Your task to perform on an android device: turn off sleep mode Image 0: 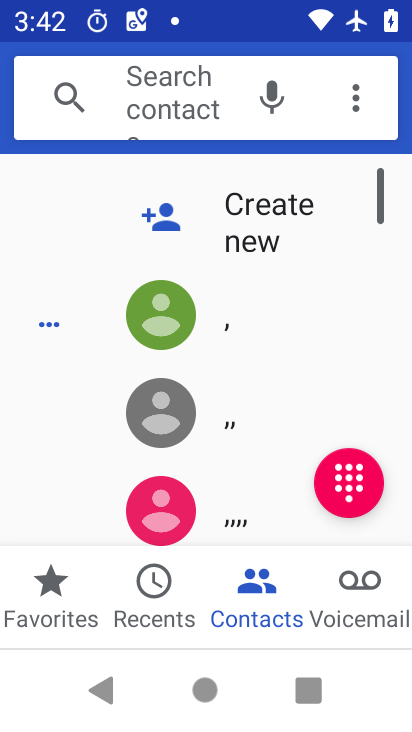
Step 0: press home button
Your task to perform on an android device: turn off sleep mode Image 1: 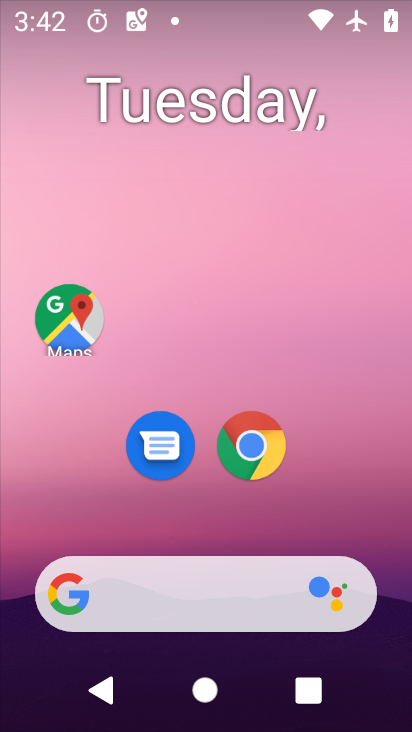
Step 1: drag from (184, 539) to (339, 1)
Your task to perform on an android device: turn off sleep mode Image 2: 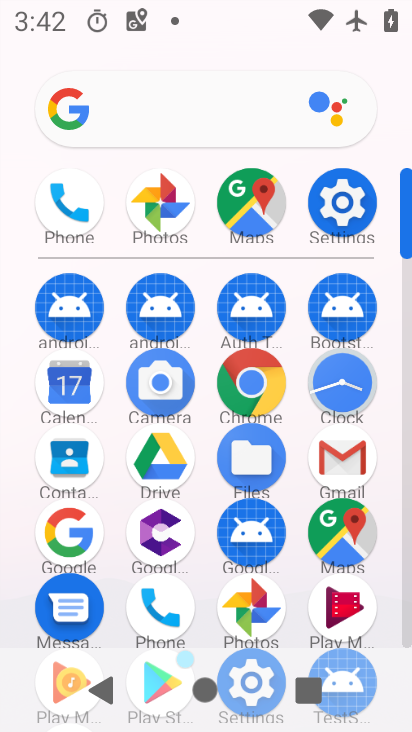
Step 2: click (344, 186)
Your task to perform on an android device: turn off sleep mode Image 3: 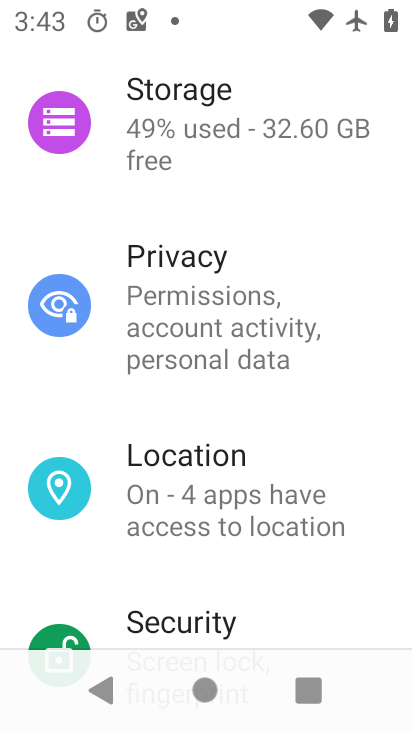
Step 3: drag from (220, 154) to (172, 485)
Your task to perform on an android device: turn off sleep mode Image 4: 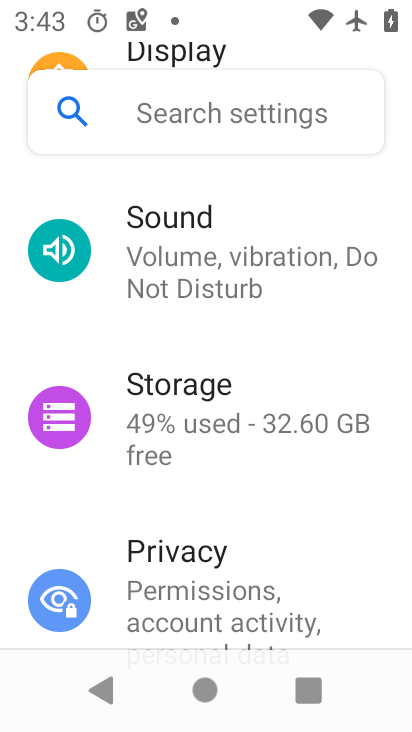
Step 4: drag from (177, 249) to (130, 600)
Your task to perform on an android device: turn off sleep mode Image 5: 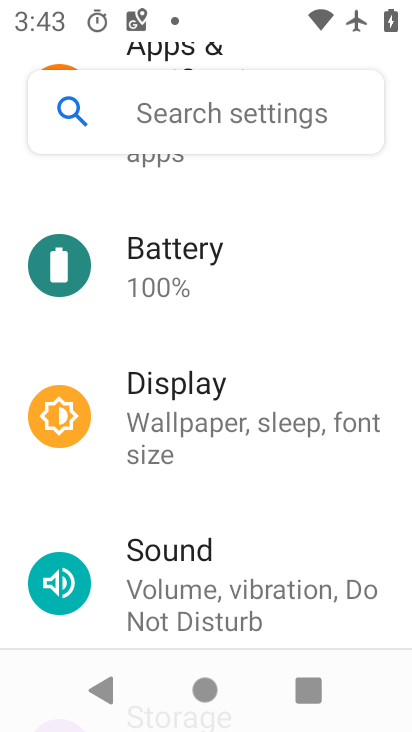
Step 5: click (158, 380)
Your task to perform on an android device: turn off sleep mode Image 6: 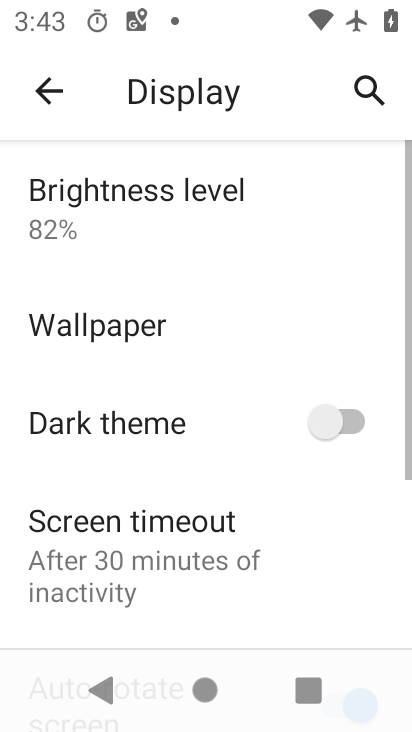
Step 6: task complete